Your task to perform on an android device: toggle pop-ups in chrome Image 0: 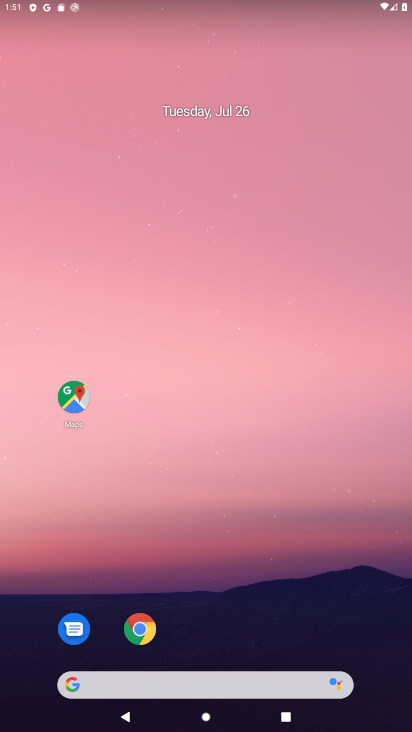
Step 0: click (155, 627)
Your task to perform on an android device: toggle pop-ups in chrome Image 1: 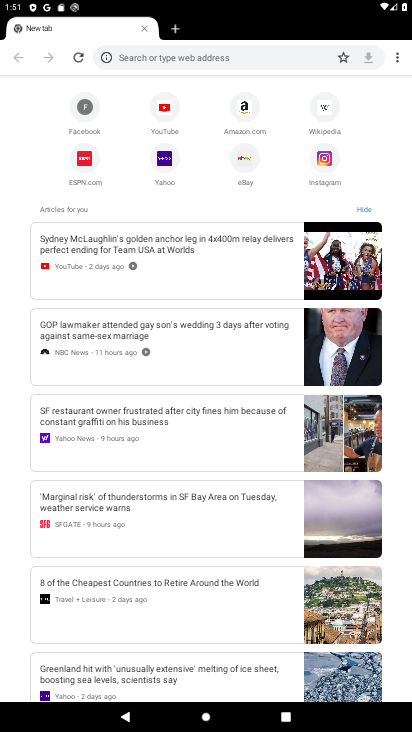
Step 1: click (398, 59)
Your task to perform on an android device: toggle pop-ups in chrome Image 2: 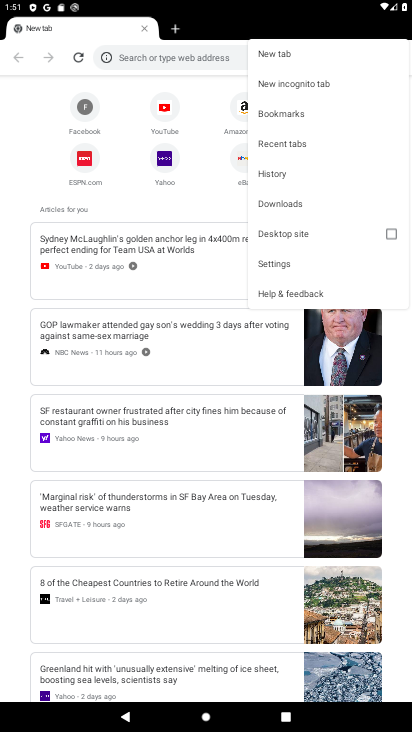
Step 2: click (296, 264)
Your task to perform on an android device: toggle pop-ups in chrome Image 3: 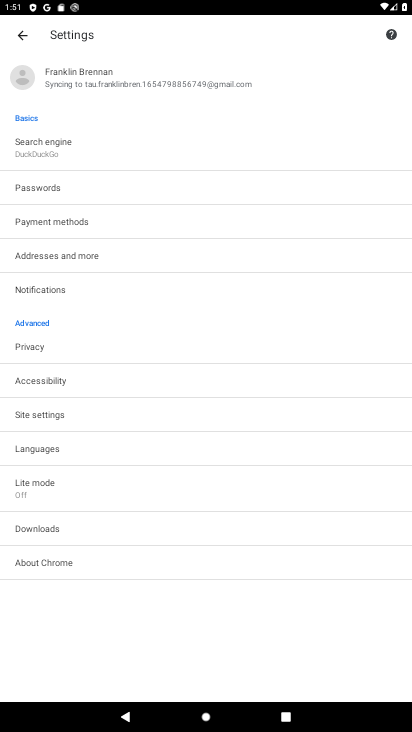
Step 3: click (51, 406)
Your task to perform on an android device: toggle pop-ups in chrome Image 4: 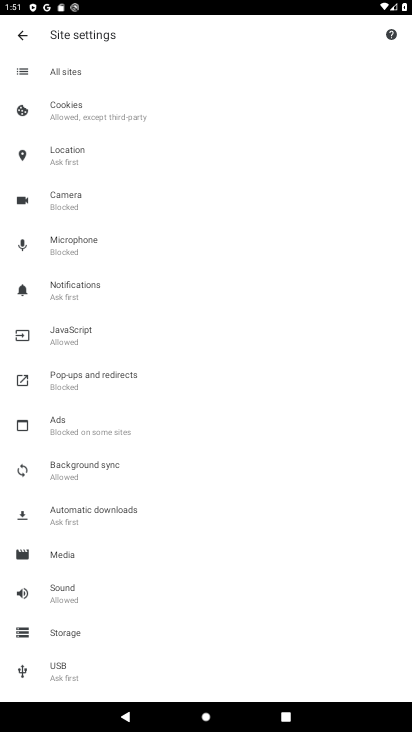
Step 4: click (124, 374)
Your task to perform on an android device: toggle pop-ups in chrome Image 5: 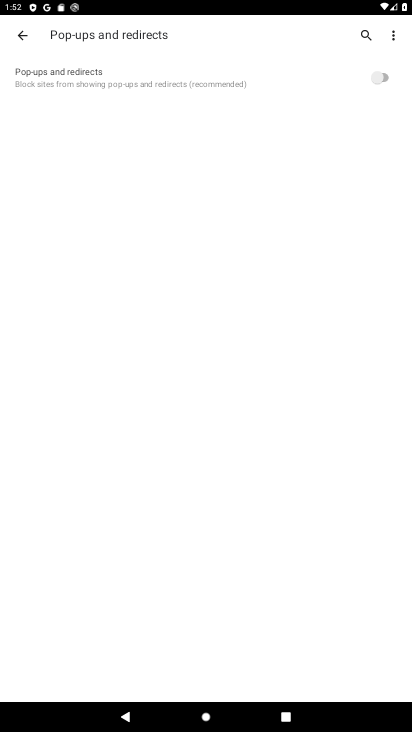
Step 5: click (380, 74)
Your task to perform on an android device: toggle pop-ups in chrome Image 6: 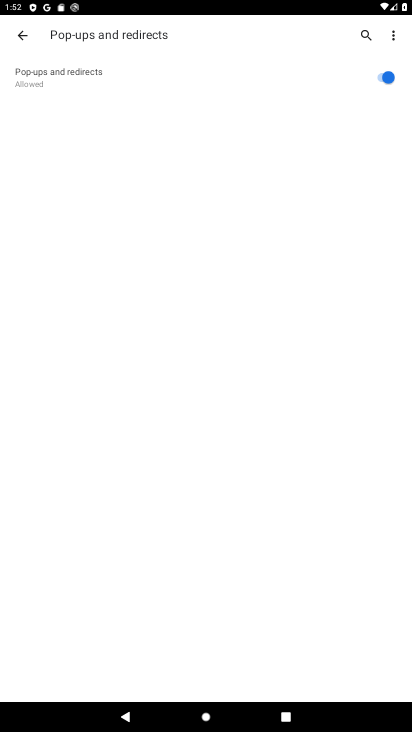
Step 6: task complete